Your task to perform on an android device: open the mobile data screen to see how much data has been used Image 0: 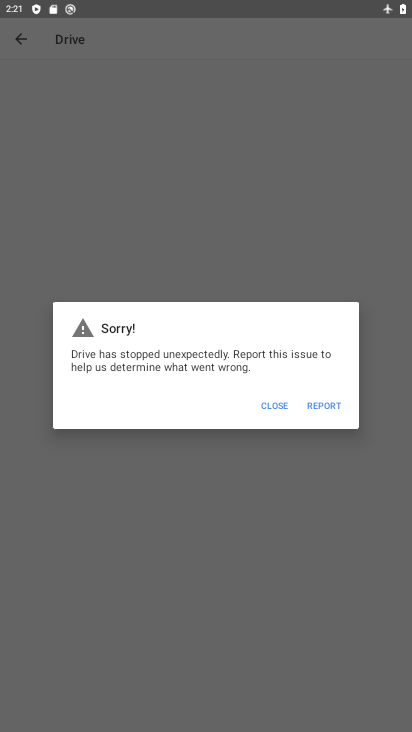
Step 0: press home button
Your task to perform on an android device: open the mobile data screen to see how much data has been used Image 1: 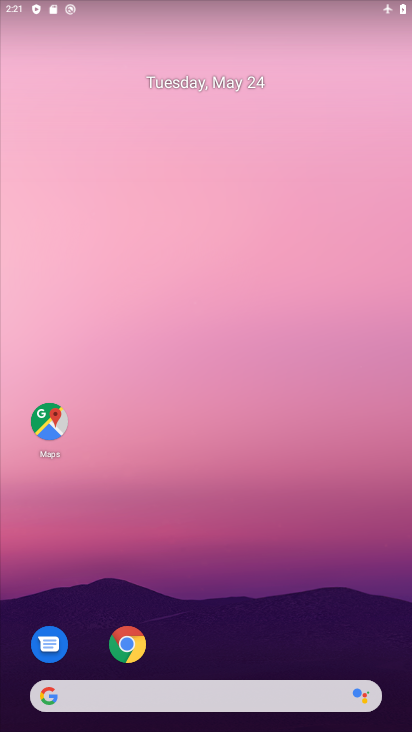
Step 1: drag from (247, 614) to (267, 82)
Your task to perform on an android device: open the mobile data screen to see how much data has been used Image 2: 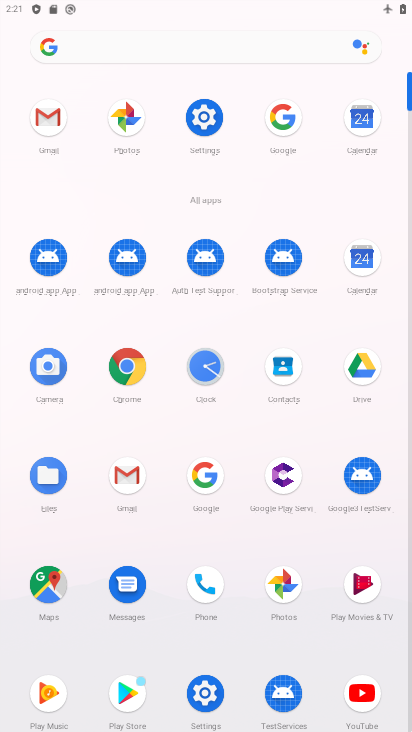
Step 2: click (199, 107)
Your task to perform on an android device: open the mobile data screen to see how much data has been used Image 3: 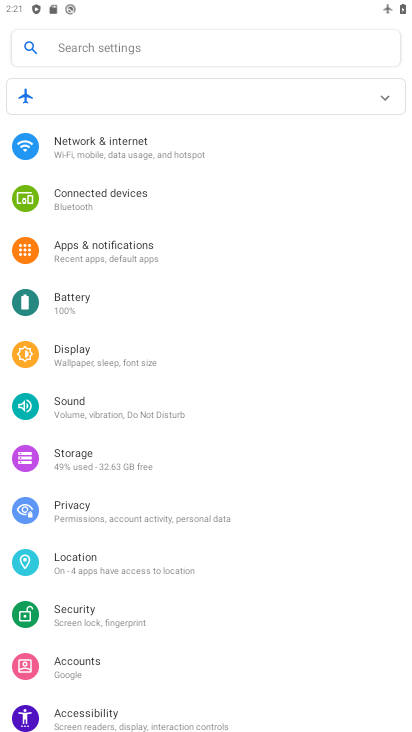
Step 3: click (114, 142)
Your task to perform on an android device: open the mobile data screen to see how much data has been used Image 4: 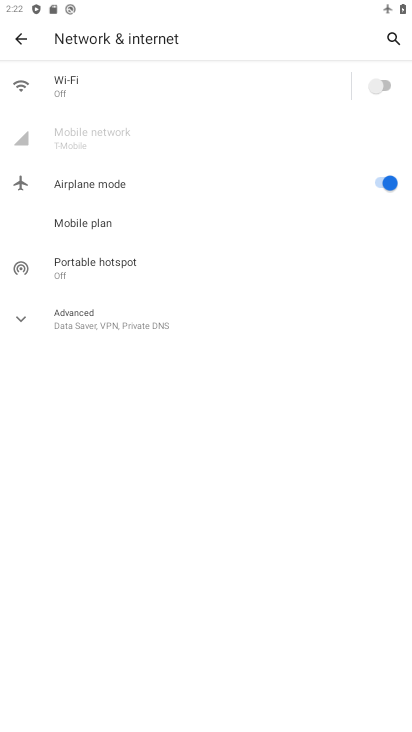
Step 4: task complete